Your task to perform on an android device: open a bookmark in the chrome app Image 0: 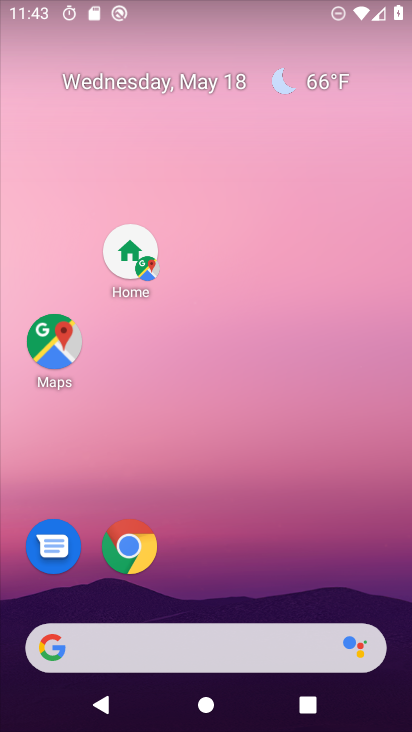
Step 0: click (135, 547)
Your task to perform on an android device: open a bookmark in the chrome app Image 1: 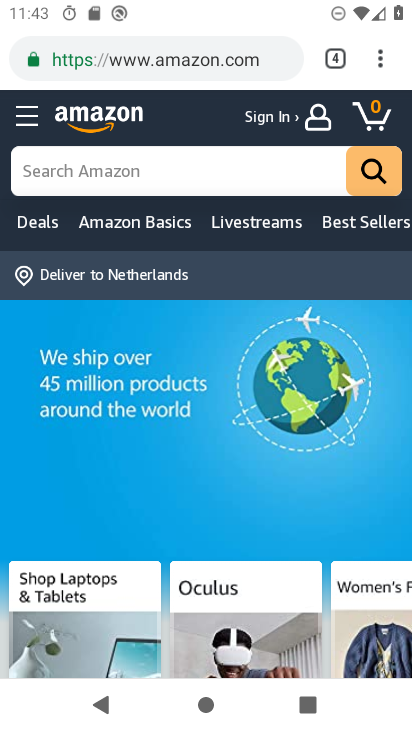
Step 1: click (392, 65)
Your task to perform on an android device: open a bookmark in the chrome app Image 2: 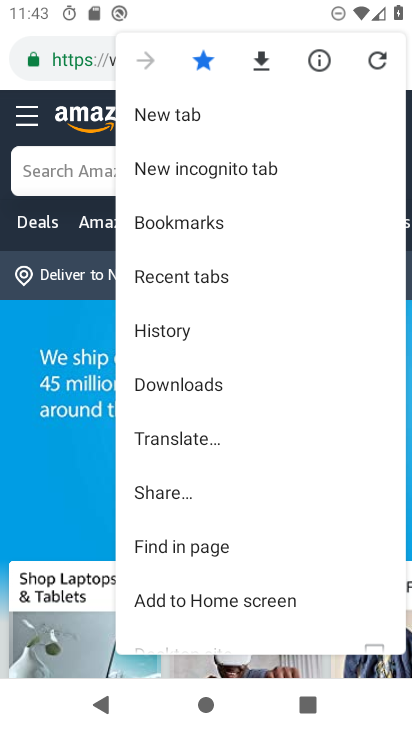
Step 2: click (198, 240)
Your task to perform on an android device: open a bookmark in the chrome app Image 3: 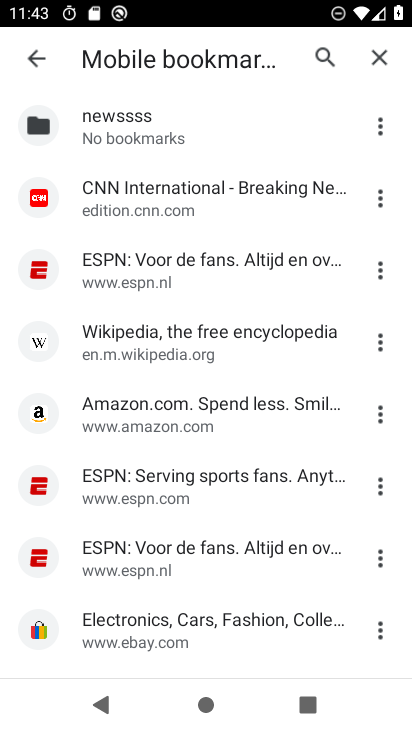
Step 3: click (166, 288)
Your task to perform on an android device: open a bookmark in the chrome app Image 4: 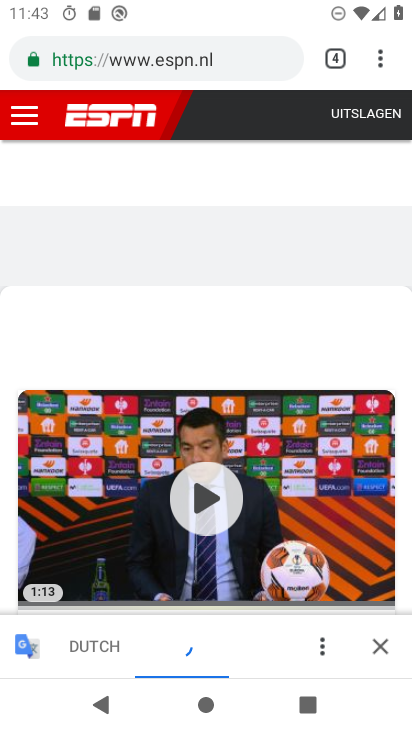
Step 4: task complete